Your task to perform on an android device: check data usage Image 0: 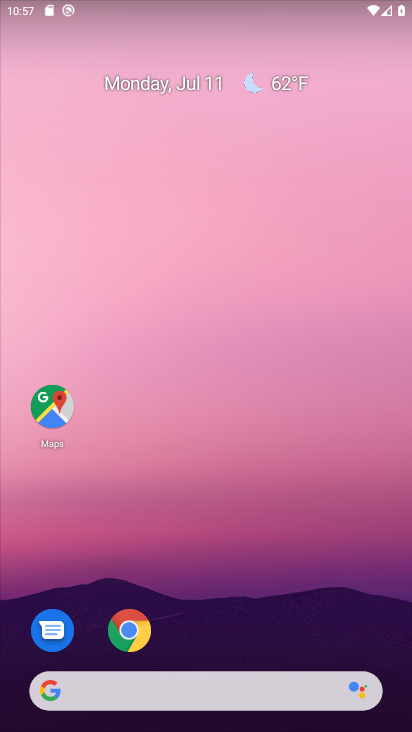
Step 0: drag from (250, 600) to (221, 14)
Your task to perform on an android device: check data usage Image 1: 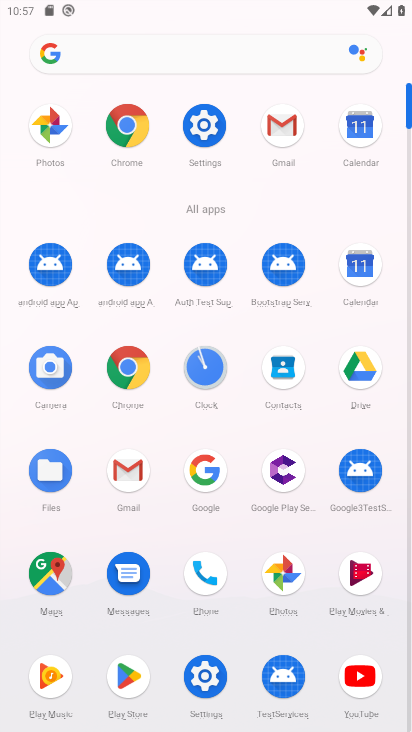
Step 1: click (204, 126)
Your task to perform on an android device: check data usage Image 2: 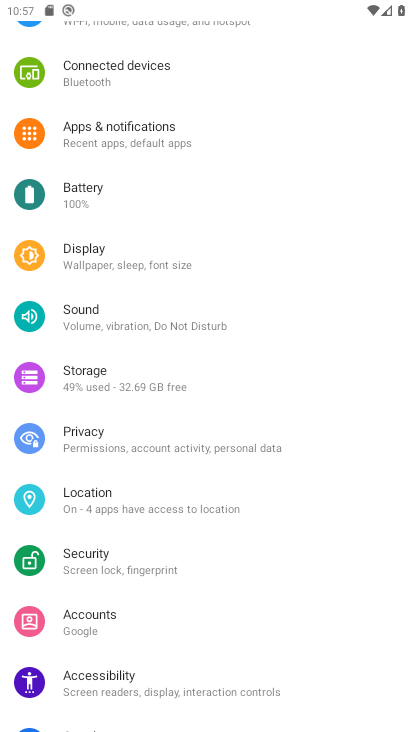
Step 2: drag from (213, 193) to (202, 435)
Your task to perform on an android device: check data usage Image 3: 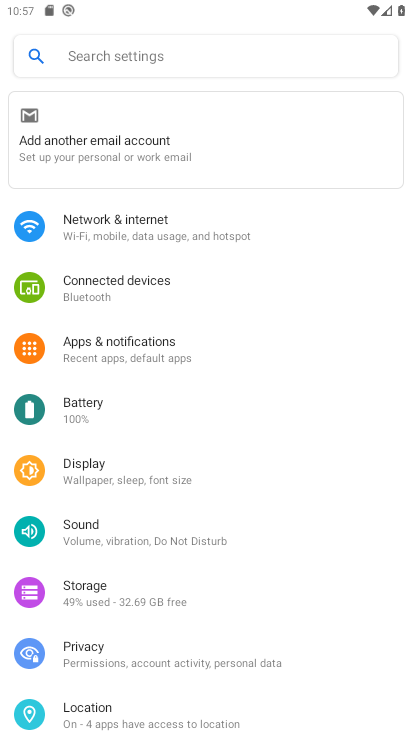
Step 3: click (171, 219)
Your task to perform on an android device: check data usage Image 4: 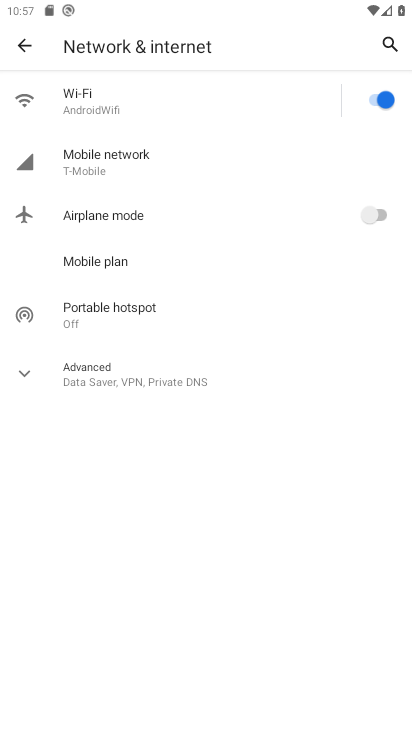
Step 4: click (155, 164)
Your task to perform on an android device: check data usage Image 5: 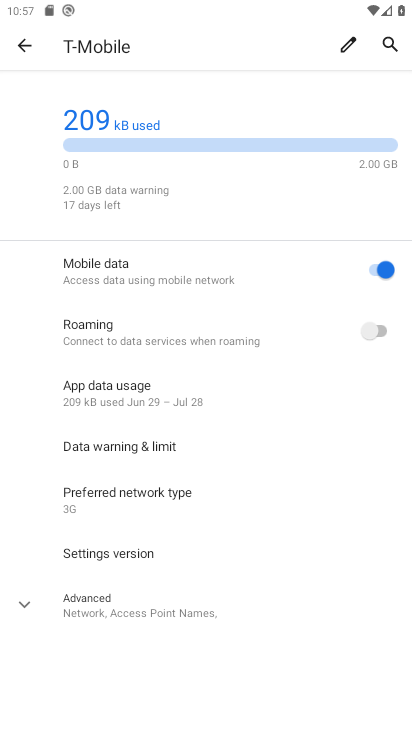
Step 5: task complete